Your task to perform on an android device: Show me popular videos on Youtube Image 0: 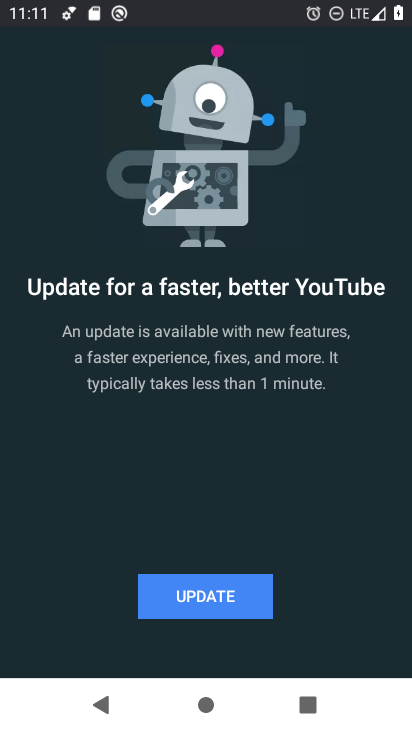
Step 0: press home button
Your task to perform on an android device: Show me popular videos on Youtube Image 1: 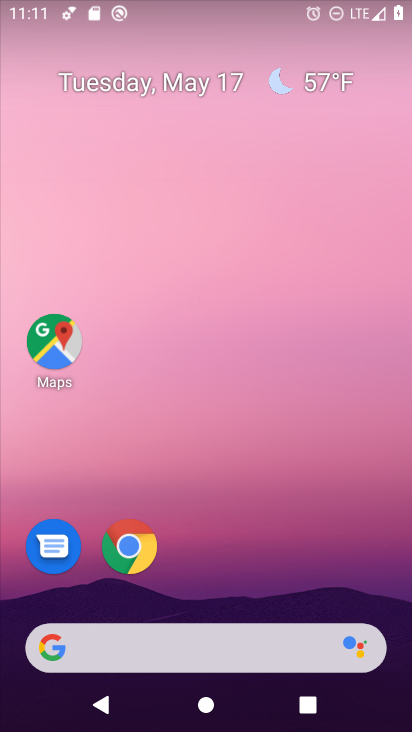
Step 1: drag from (280, 596) to (320, 1)
Your task to perform on an android device: Show me popular videos on Youtube Image 2: 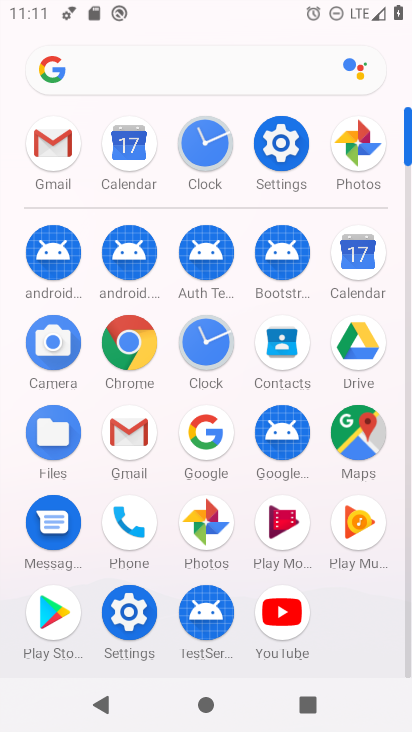
Step 2: click (291, 608)
Your task to perform on an android device: Show me popular videos on Youtube Image 3: 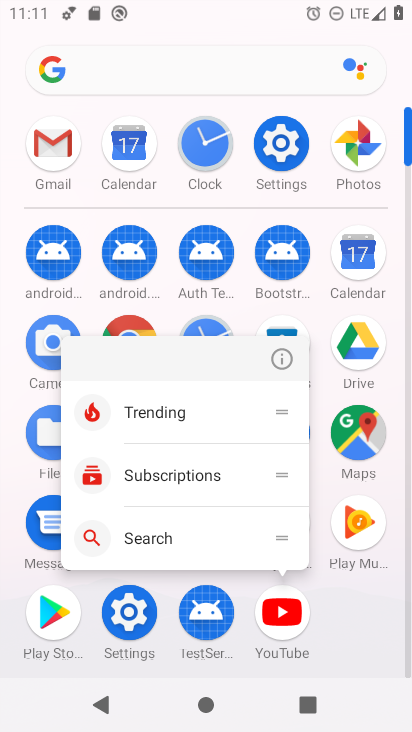
Step 3: click (291, 612)
Your task to perform on an android device: Show me popular videos on Youtube Image 4: 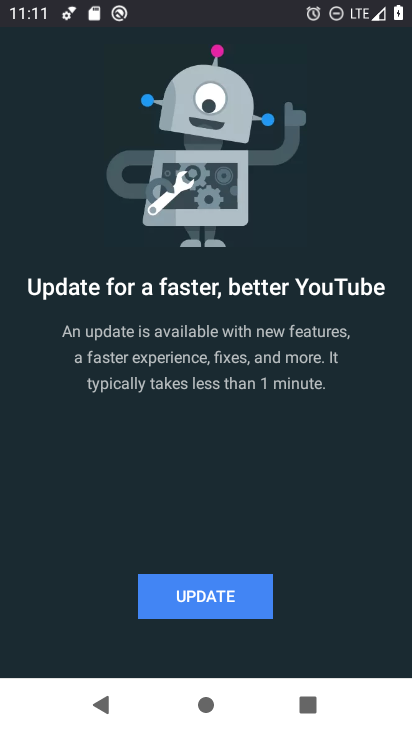
Step 4: click (205, 604)
Your task to perform on an android device: Show me popular videos on Youtube Image 5: 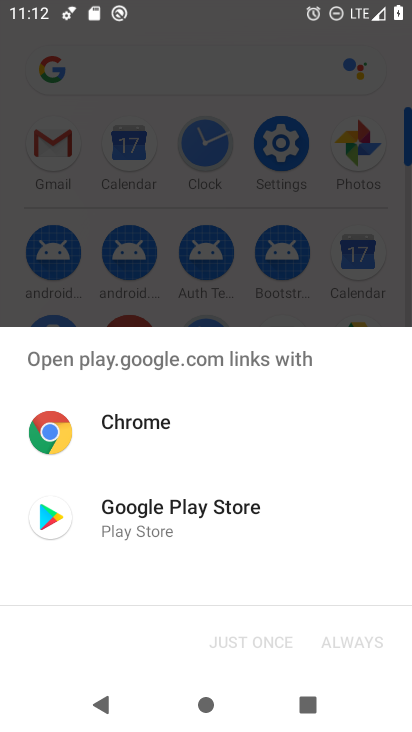
Step 5: click (160, 527)
Your task to perform on an android device: Show me popular videos on Youtube Image 6: 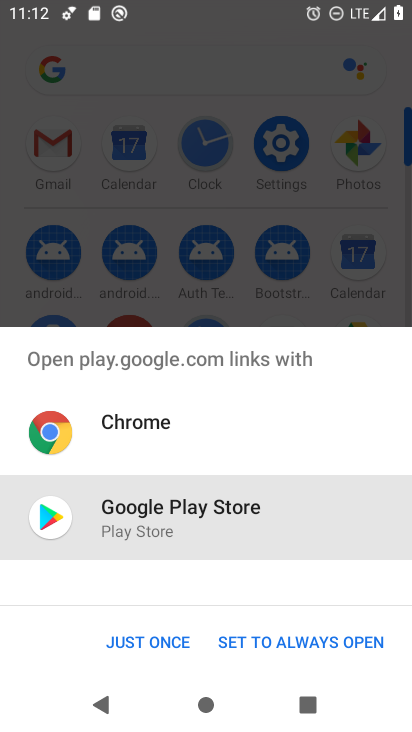
Step 6: click (138, 651)
Your task to perform on an android device: Show me popular videos on Youtube Image 7: 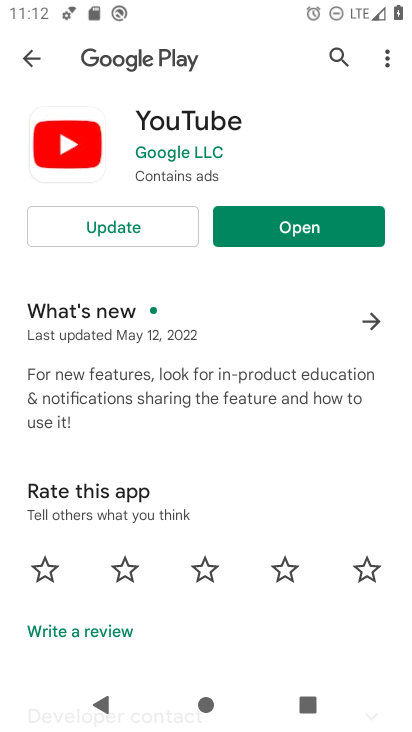
Step 7: click (114, 232)
Your task to perform on an android device: Show me popular videos on Youtube Image 8: 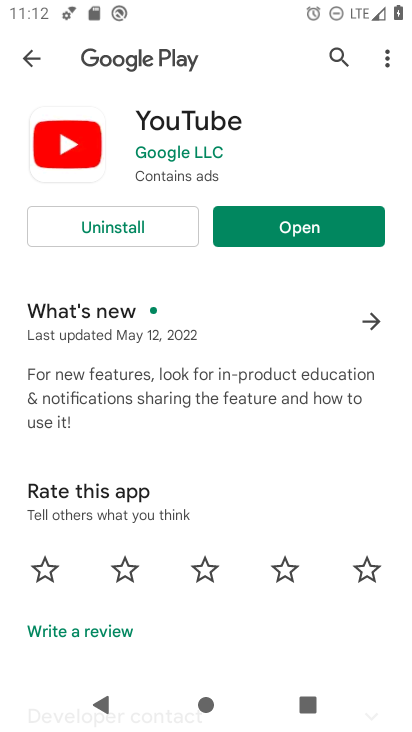
Step 8: click (304, 225)
Your task to perform on an android device: Show me popular videos on Youtube Image 9: 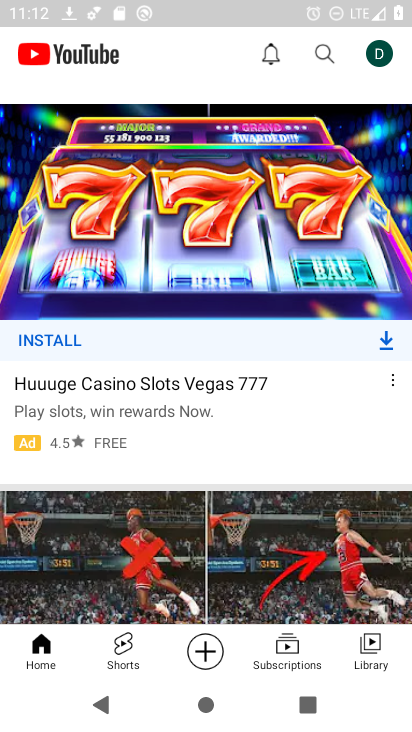
Step 9: task complete